Your task to perform on an android device: Open CNN.com Image 0: 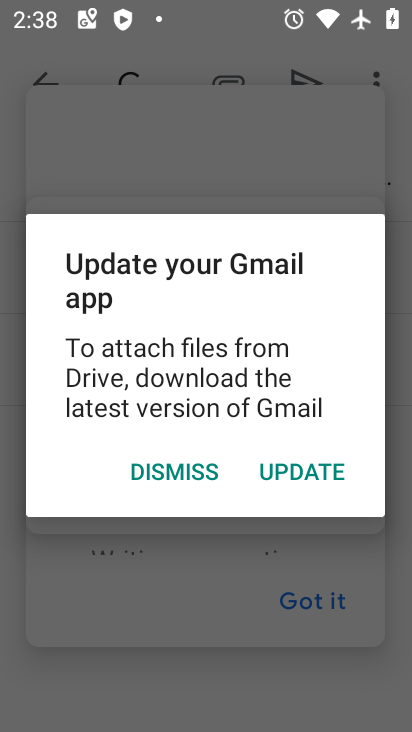
Step 0: press home button
Your task to perform on an android device: Open CNN.com Image 1: 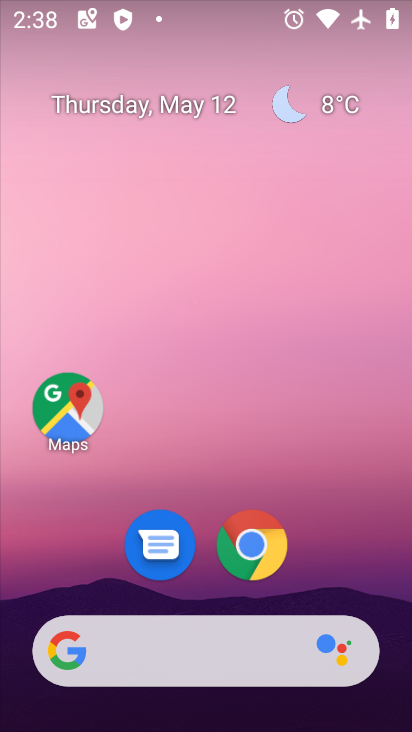
Step 1: click (252, 547)
Your task to perform on an android device: Open CNN.com Image 2: 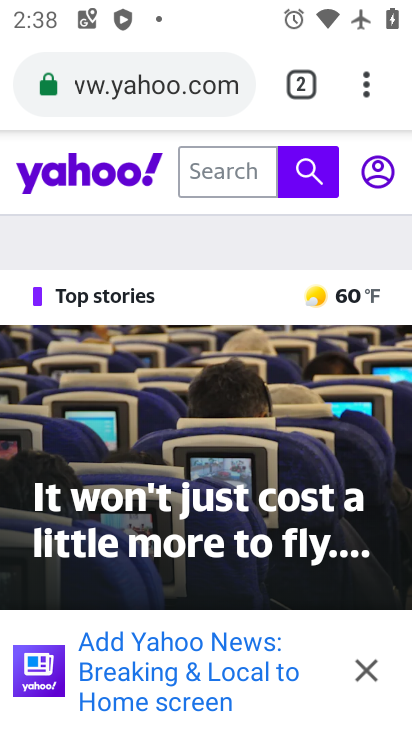
Step 2: click (134, 82)
Your task to perform on an android device: Open CNN.com Image 3: 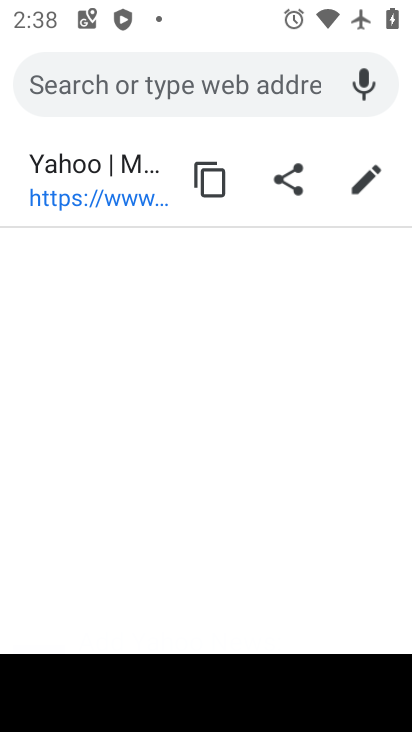
Step 3: type "cnn.com"
Your task to perform on an android device: Open CNN.com Image 4: 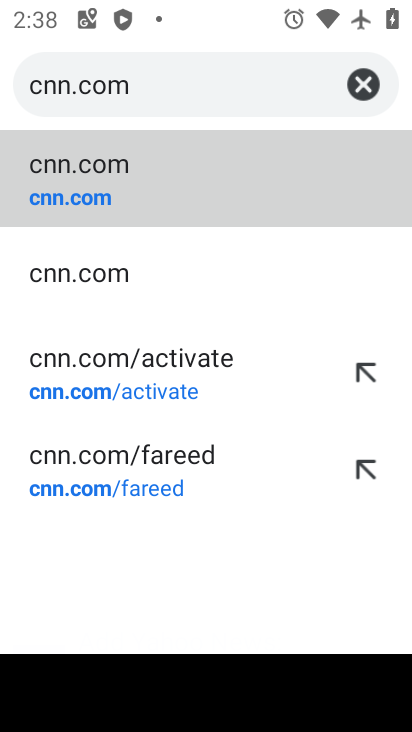
Step 4: click (64, 170)
Your task to perform on an android device: Open CNN.com Image 5: 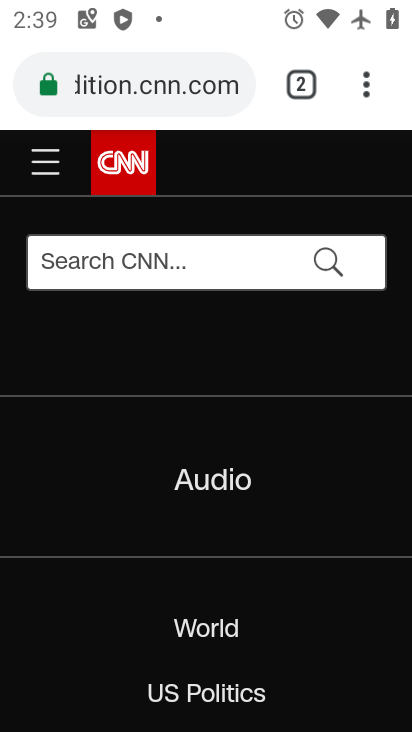
Step 5: task complete